Your task to perform on an android device: Search for a new eyeliner Image 0: 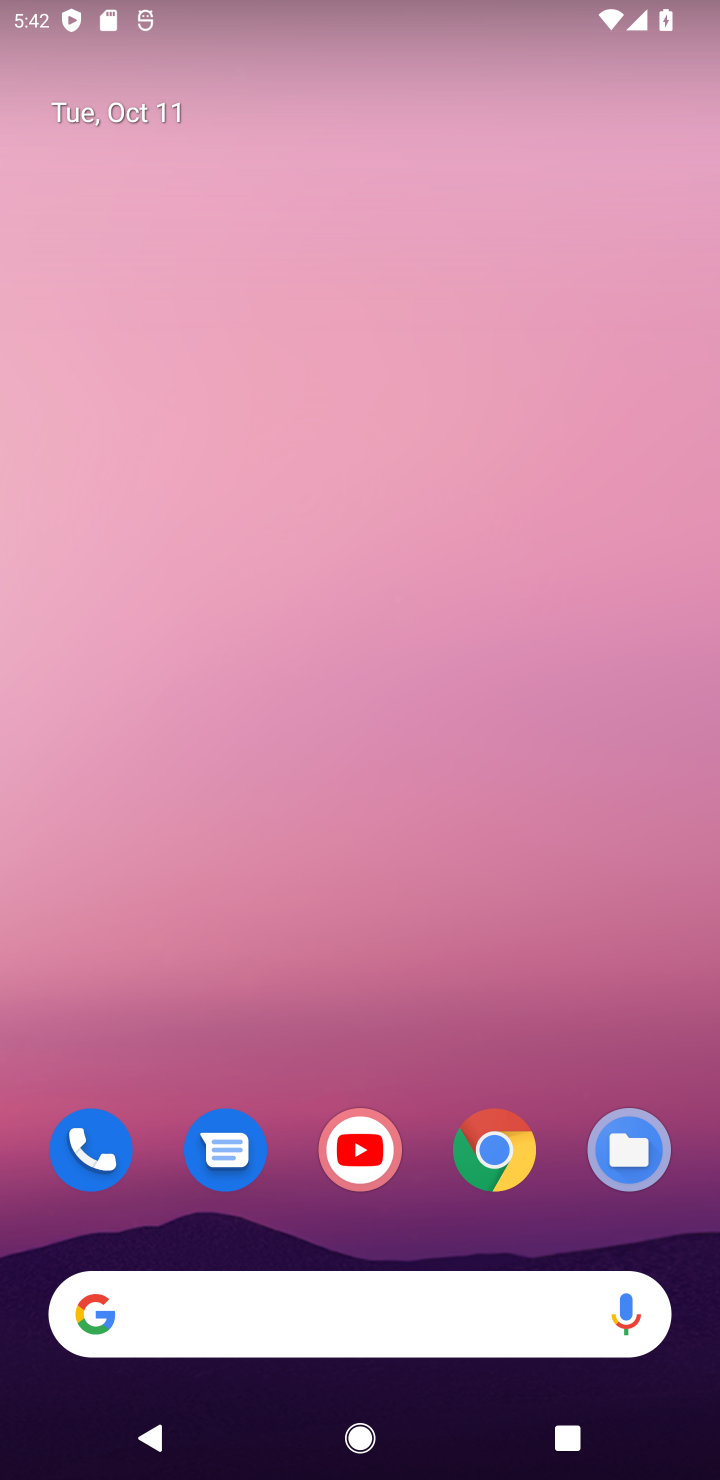
Step 0: click (503, 1158)
Your task to perform on an android device: Search for a new eyeliner Image 1: 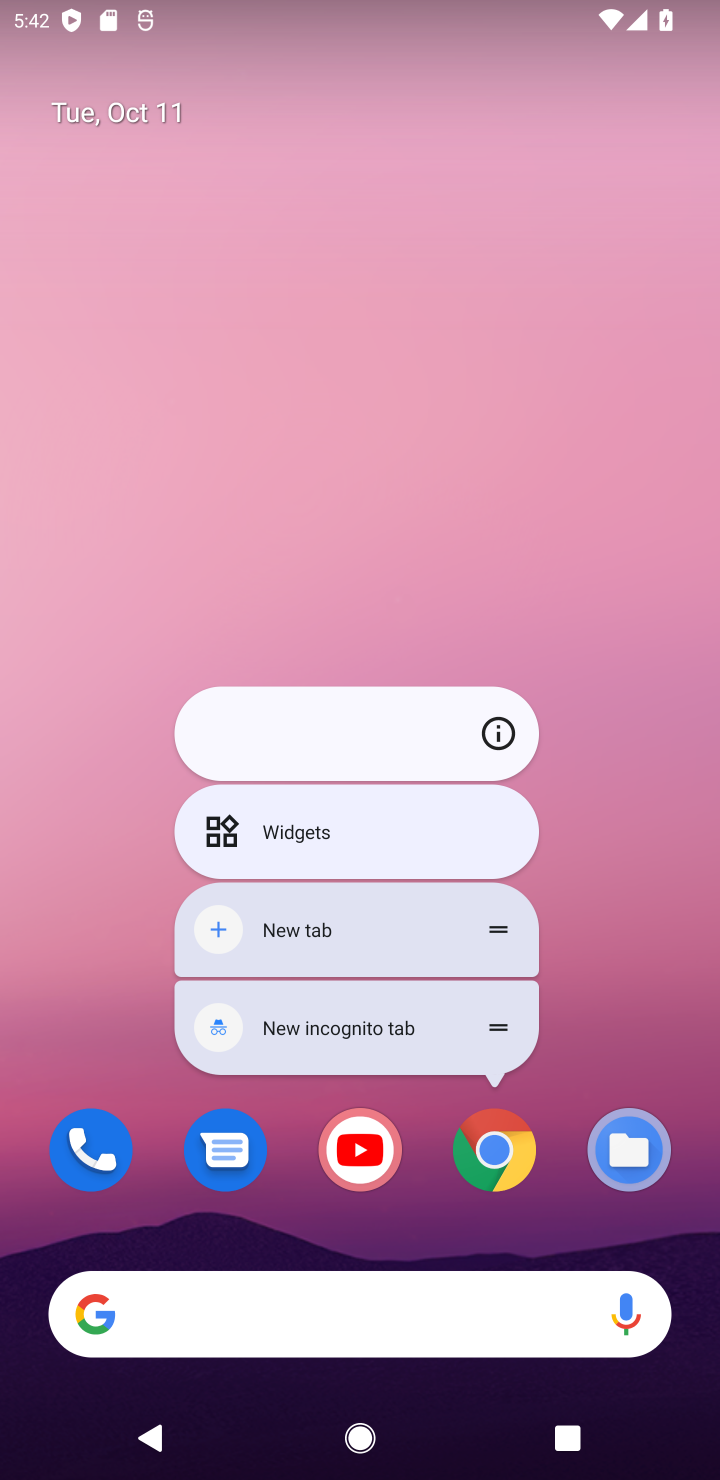
Step 1: click (503, 1158)
Your task to perform on an android device: Search for a new eyeliner Image 2: 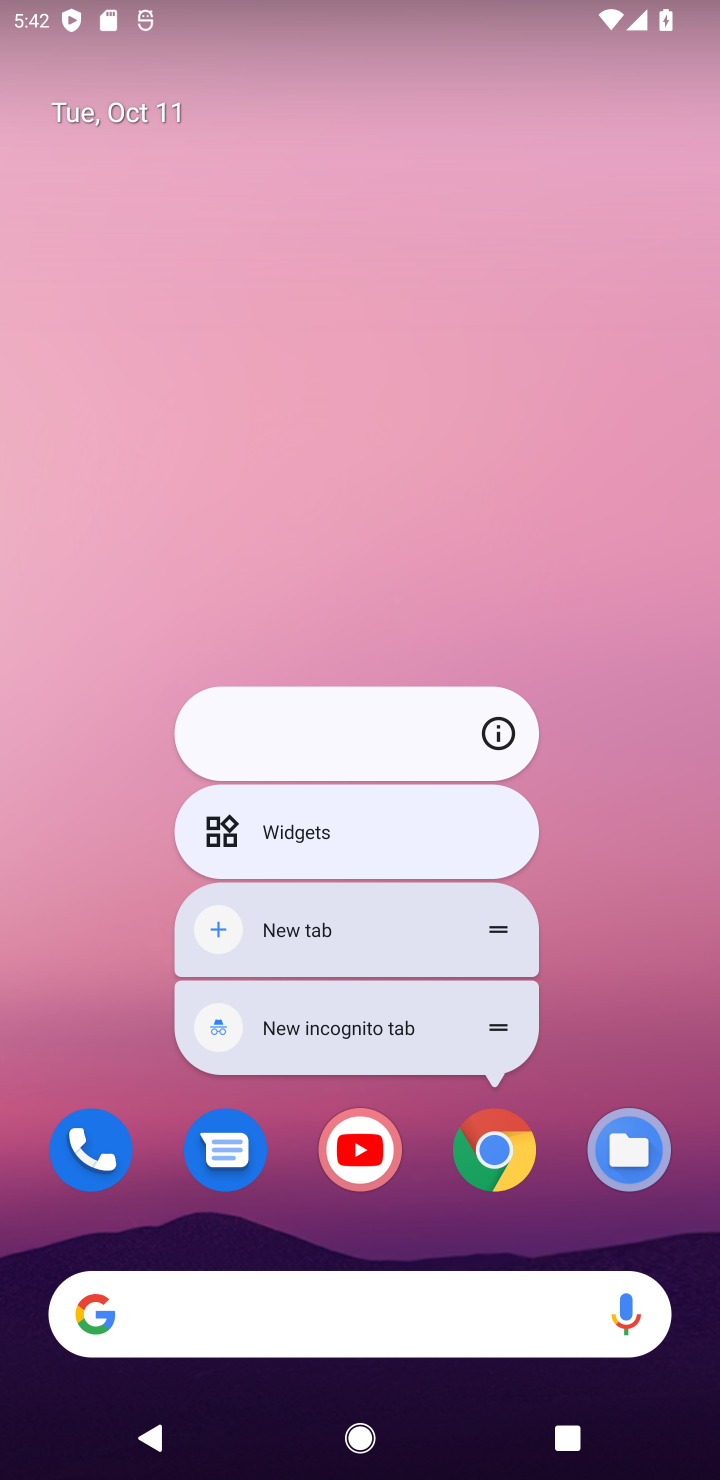
Step 2: click (505, 1148)
Your task to perform on an android device: Search for a new eyeliner Image 3: 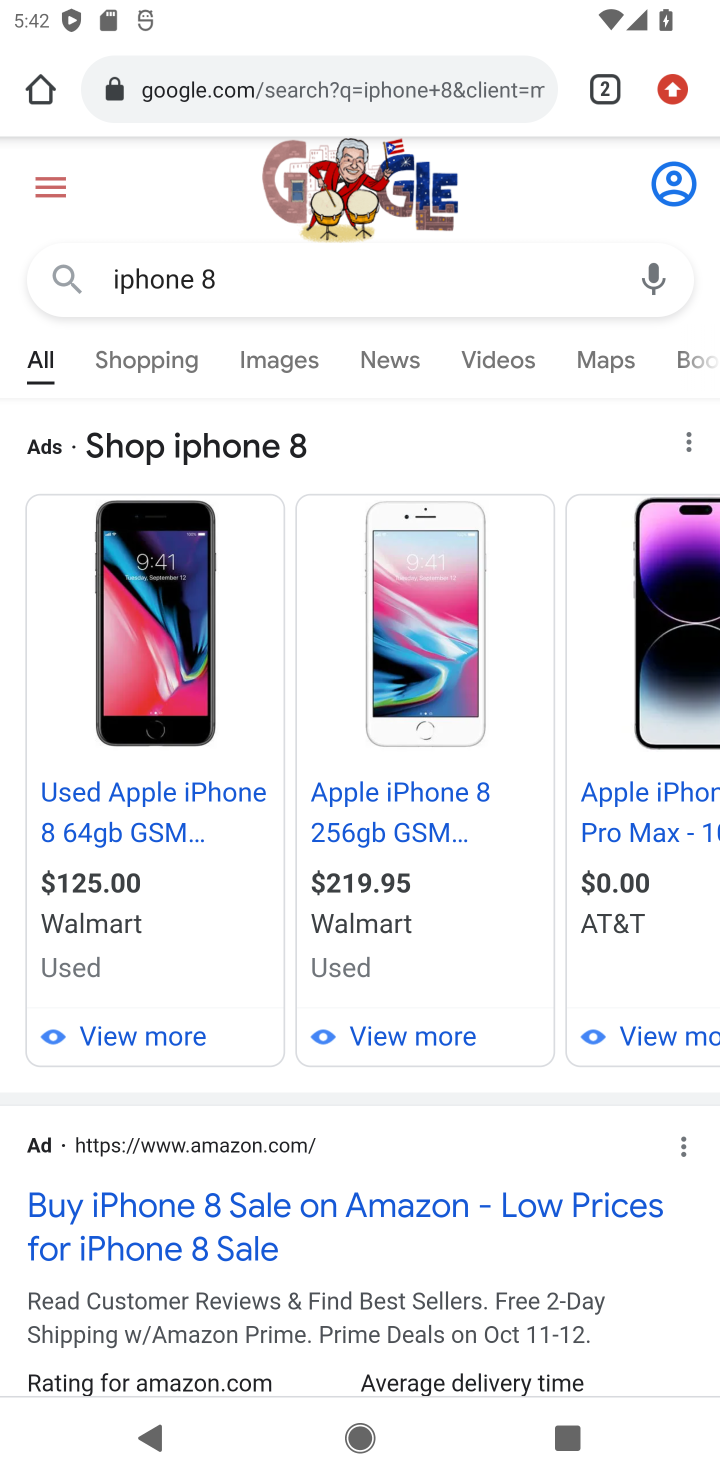
Step 3: click (313, 103)
Your task to perform on an android device: Search for a new eyeliner Image 4: 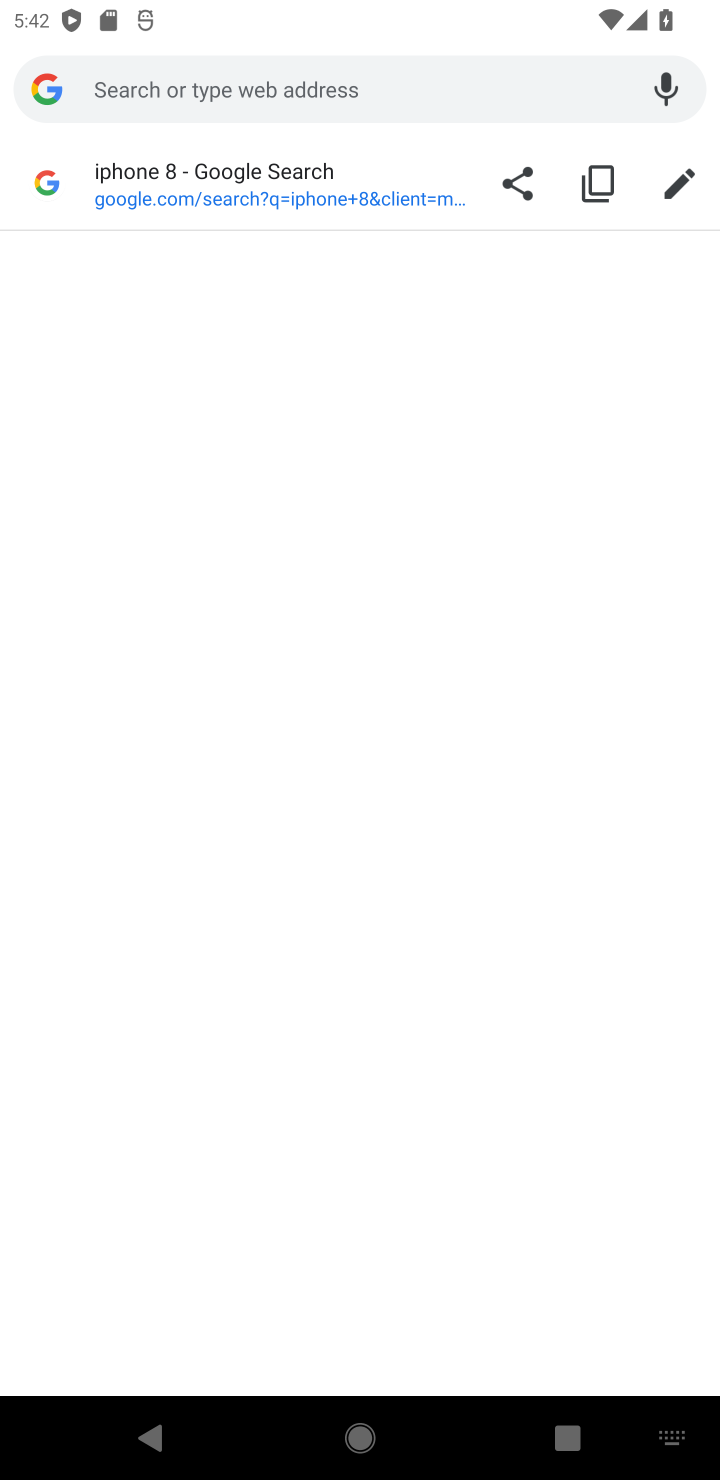
Step 4: click (330, 101)
Your task to perform on an android device: Search for a new eyeliner Image 5: 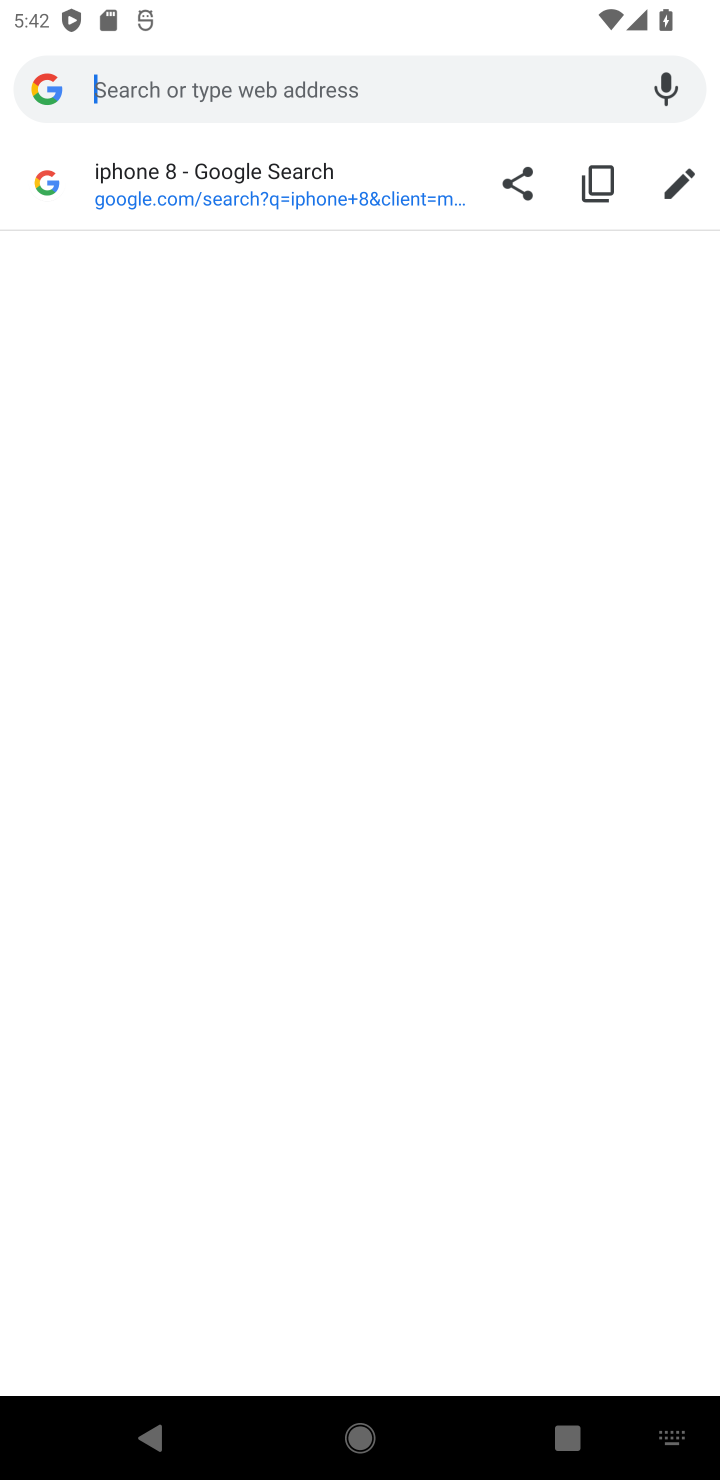
Step 5: type "new eyeliner "
Your task to perform on an android device: Search for a new eyeliner Image 6: 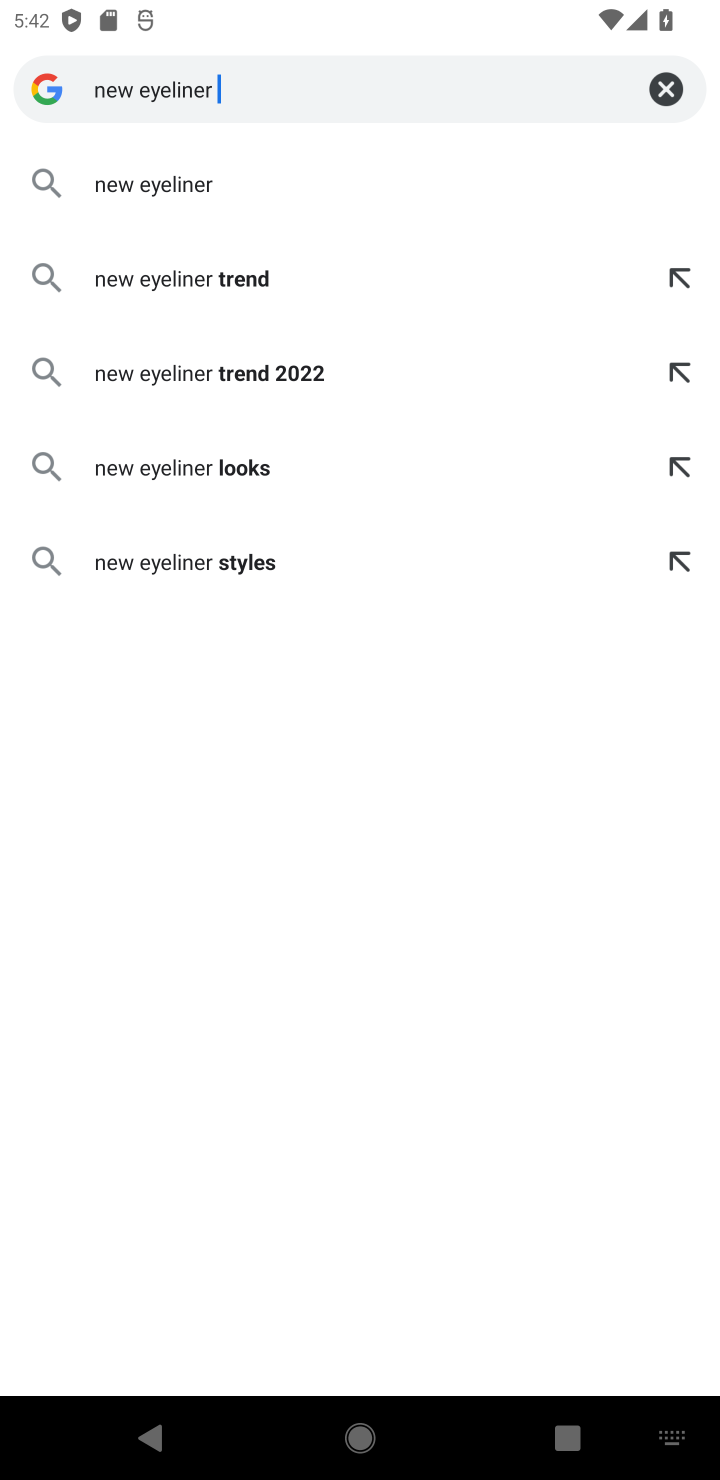
Step 6: click (129, 182)
Your task to perform on an android device: Search for a new eyeliner Image 7: 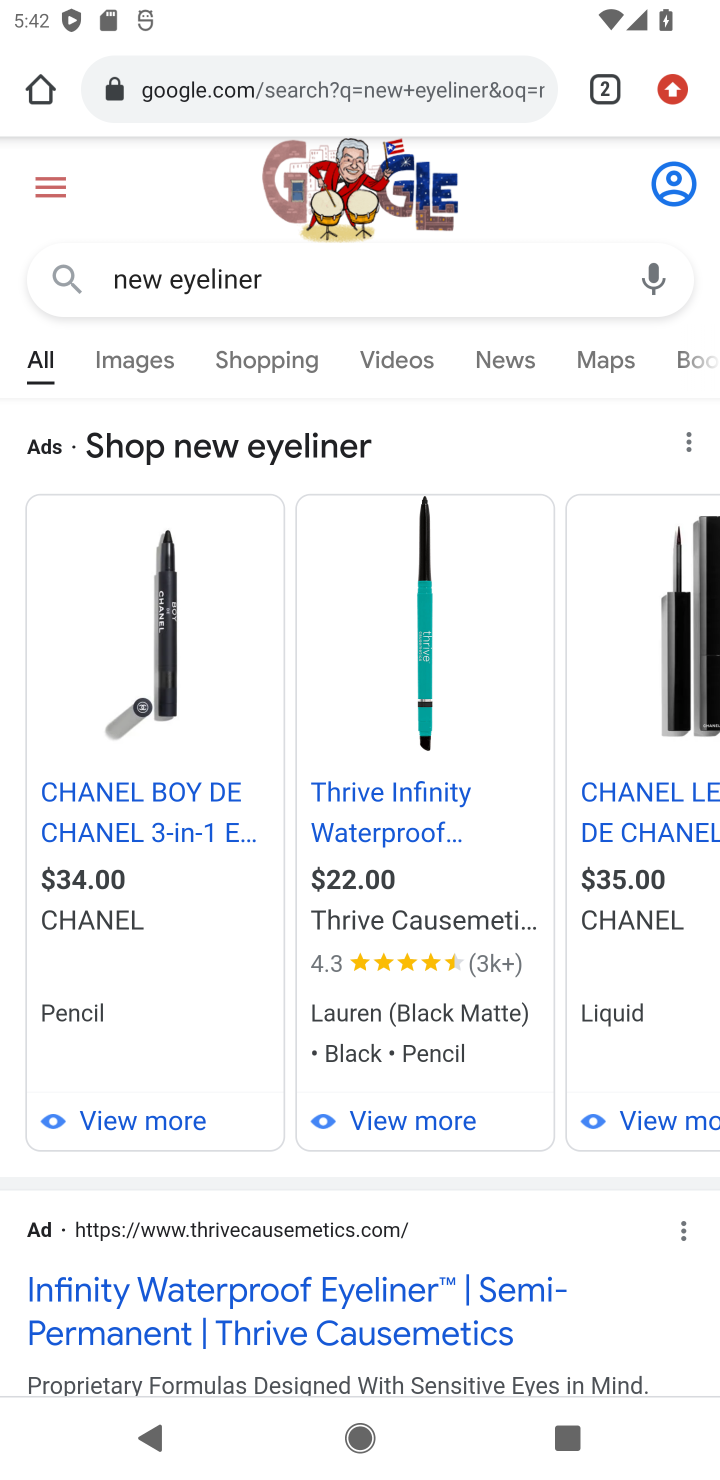
Step 7: task complete